Your task to perform on an android device: Play the last video I watched on Youtube Image 0: 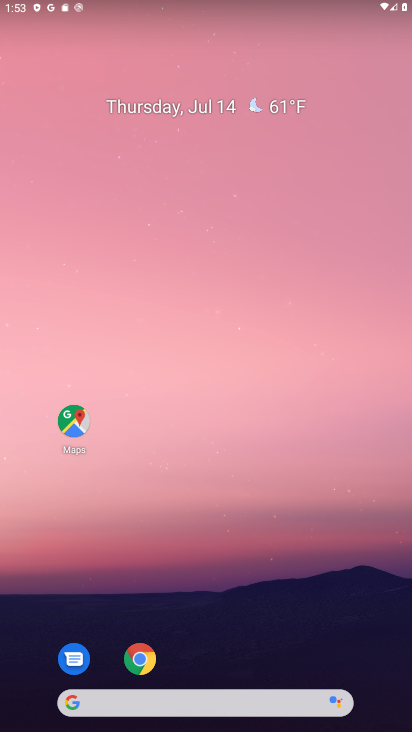
Step 0: drag from (211, 692) to (128, 51)
Your task to perform on an android device: Play the last video I watched on Youtube Image 1: 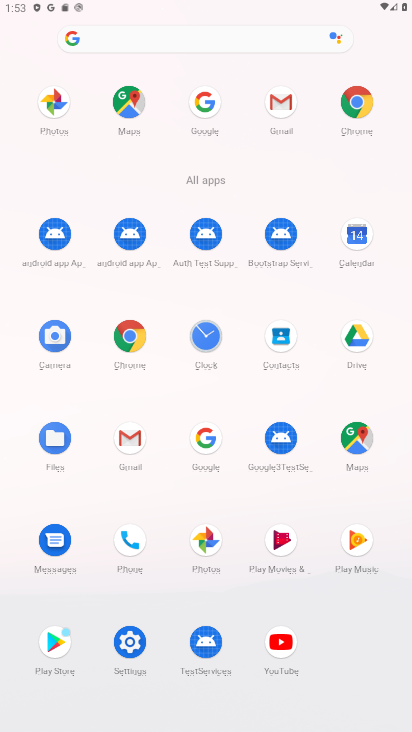
Step 1: click (268, 651)
Your task to perform on an android device: Play the last video I watched on Youtube Image 2: 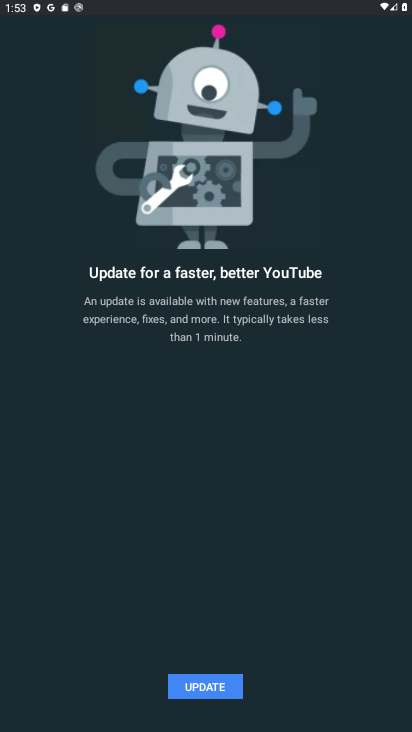
Step 2: click (196, 698)
Your task to perform on an android device: Play the last video I watched on Youtube Image 3: 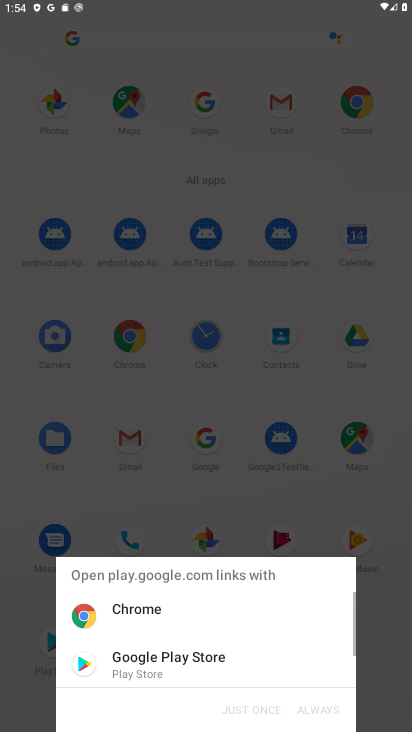
Step 3: click (214, 672)
Your task to perform on an android device: Play the last video I watched on Youtube Image 4: 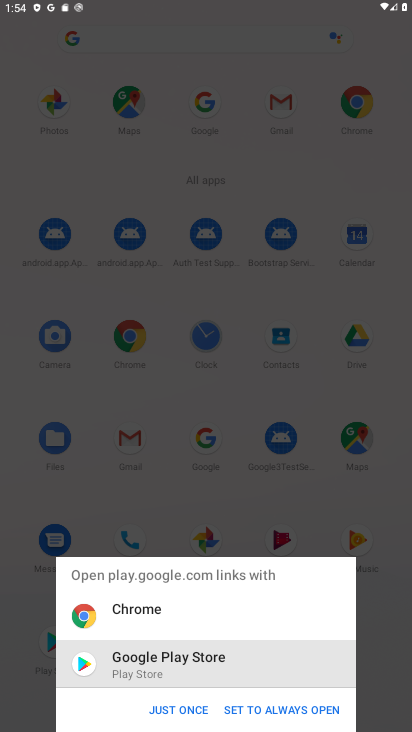
Step 4: click (186, 705)
Your task to perform on an android device: Play the last video I watched on Youtube Image 5: 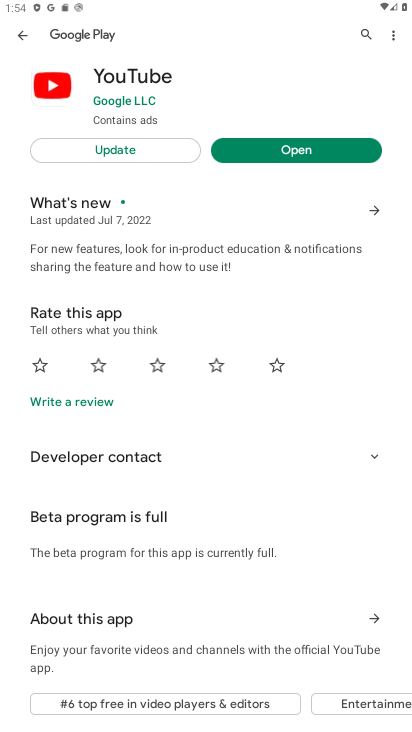
Step 5: click (135, 150)
Your task to perform on an android device: Play the last video I watched on Youtube Image 6: 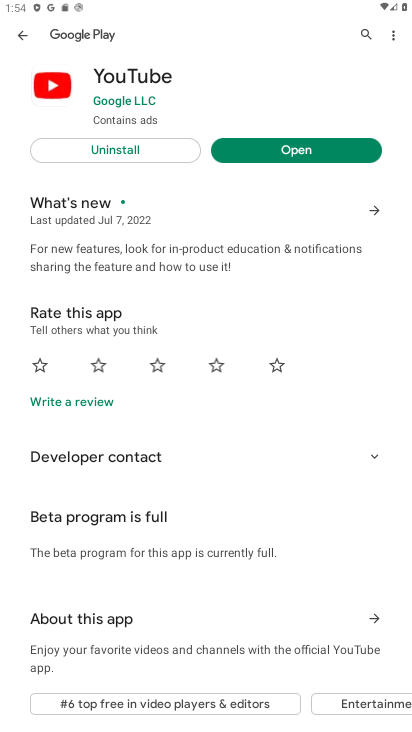
Step 6: click (314, 148)
Your task to perform on an android device: Play the last video I watched on Youtube Image 7: 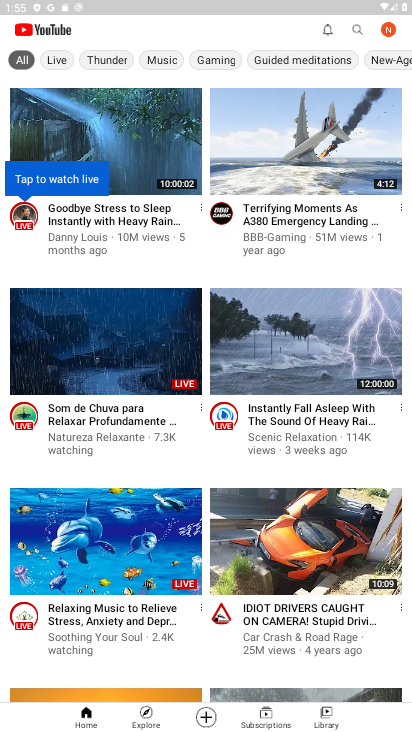
Step 7: drag from (228, 133) to (203, 496)
Your task to perform on an android device: Play the last video I watched on Youtube Image 8: 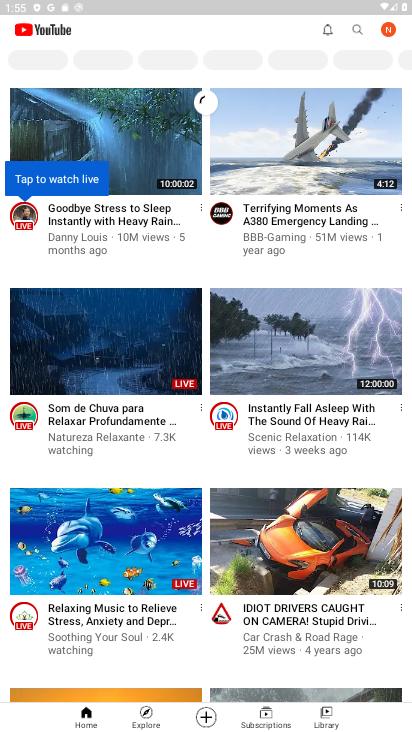
Step 8: click (327, 717)
Your task to perform on an android device: Play the last video I watched on Youtube Image 9: 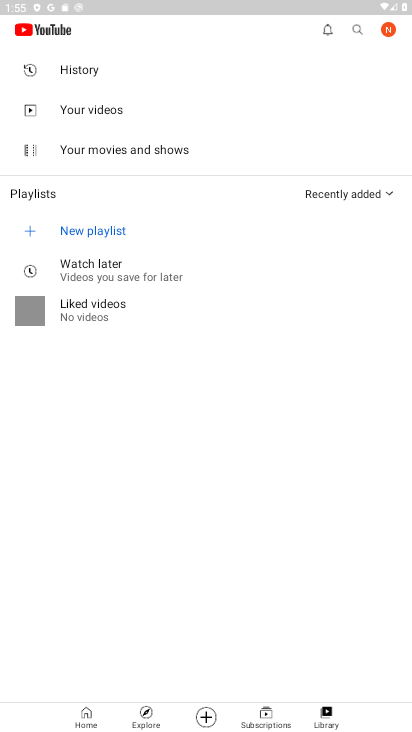
Step 9: click (81, 75)
Your task to perform on an android device: Play the last video I watched on Youtube Image 10: 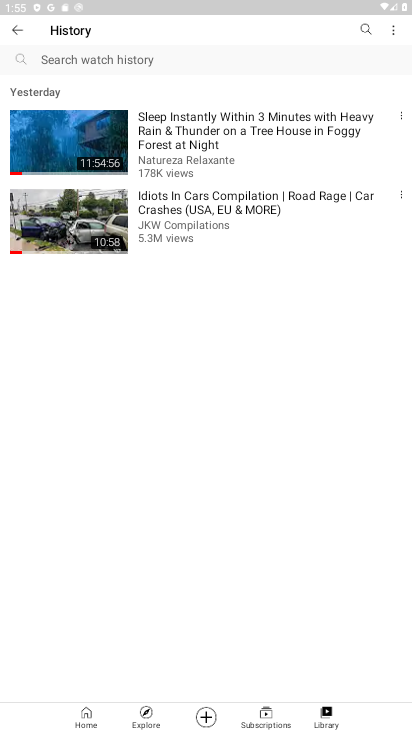
Step 10: click (102, 136)
Your task to perform on an android device: Play the last video I watched on Youtube Image 11: 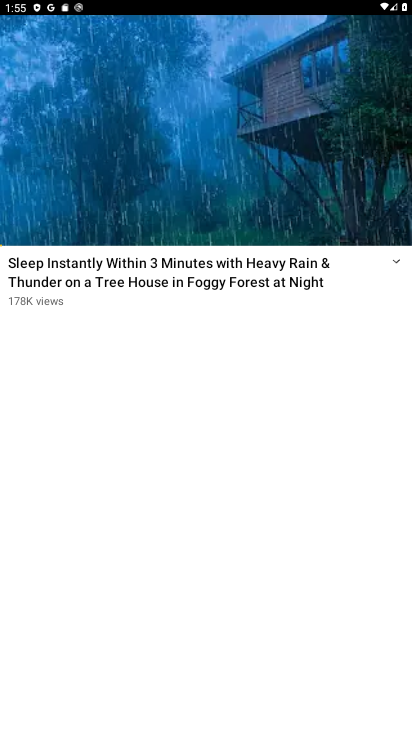
Step 11: click (215, 135)
Your task to perform on an android device: Play the last video I watched on Youtube Image 12: 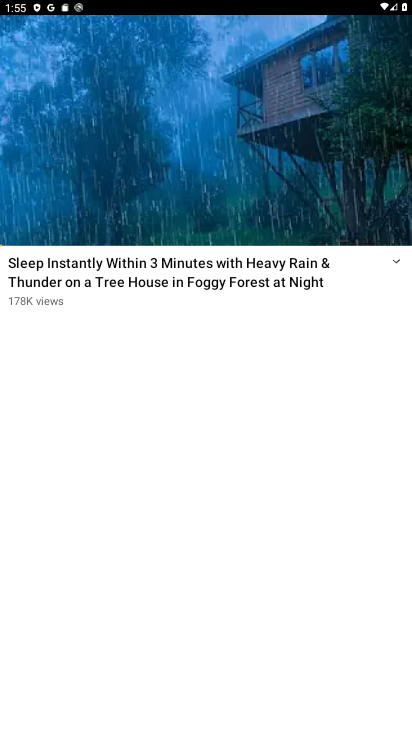
Step 12: task complete